Your task to perform on an android device: visit the assistant section in the google photos Image 0: 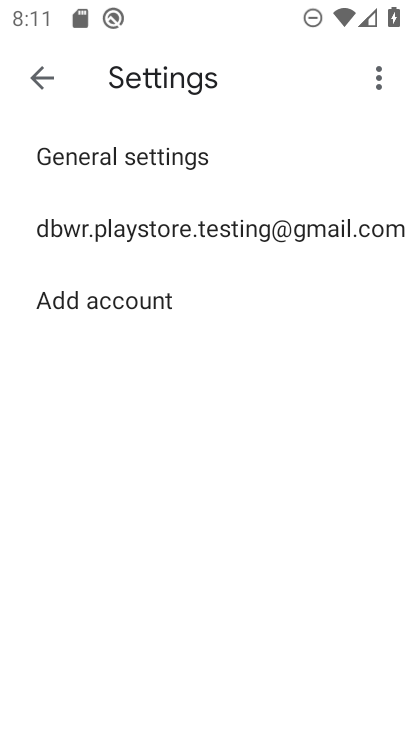
Step 0: press home button
Your task to perform on an android device: visit the assistant section in the google photos Image 1: 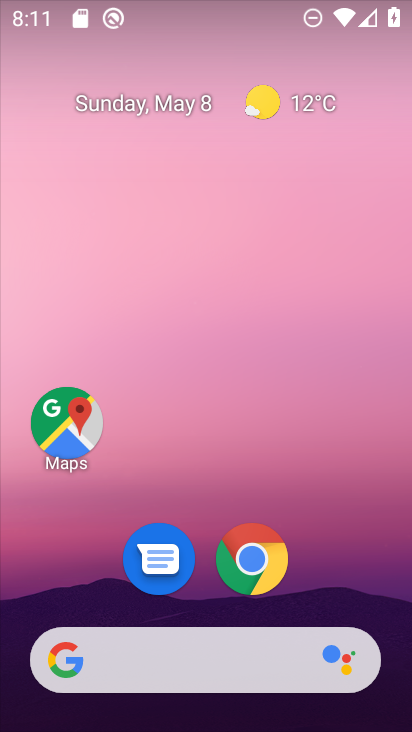
Step 1: drag from (372, 527) to (356, 1)
Your task to perform on an android device: visit the assistant section in the google photos Image 2: 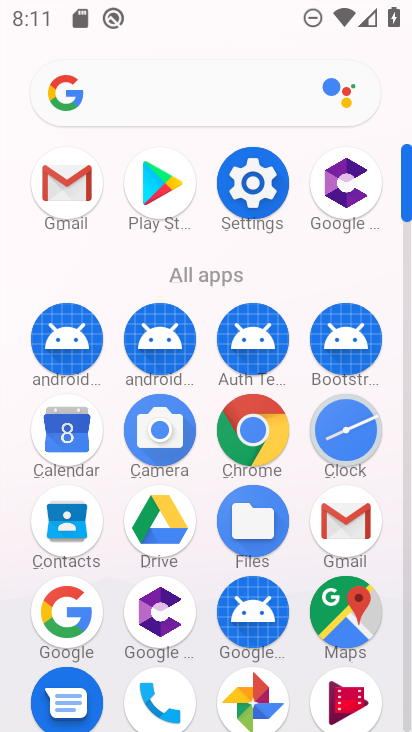
Step 2: click (253, 700)
Your task to perform on an android device: visit the assistant section in the google photos Image 3: 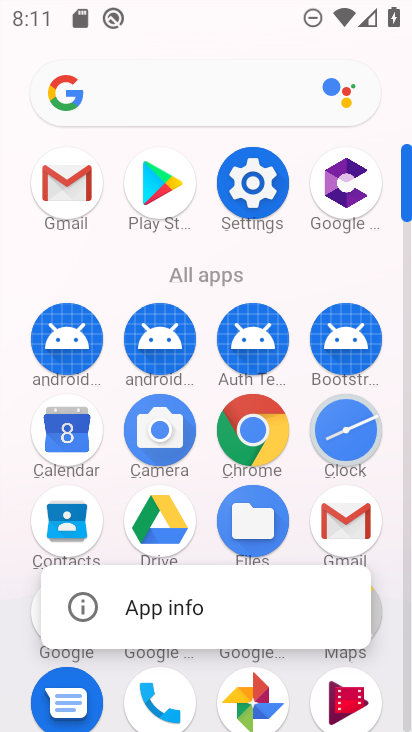
Step 3: click (253, 700)
Your task to perform on an android device: visit the assistant section in the google photos Image 4: 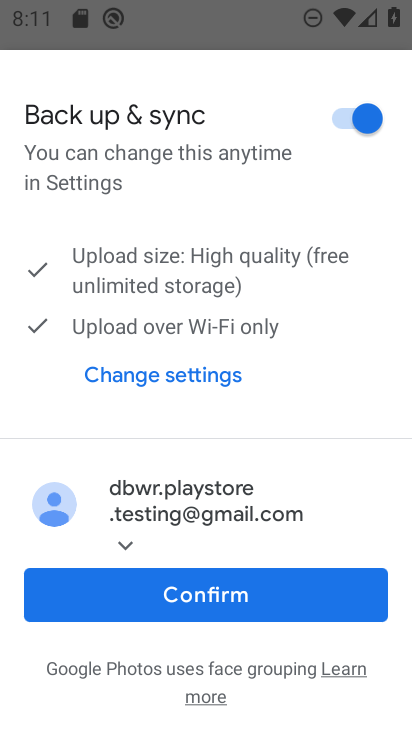
Step 4: click (203, 602)
Your task to perform on an android device: visit the assistant section in the google photos Image 5: 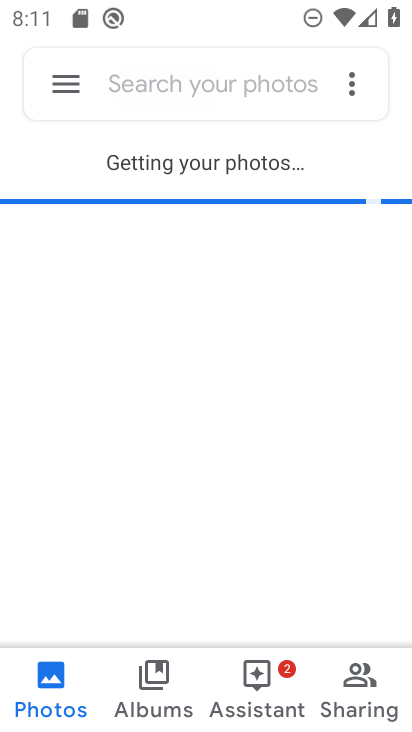
Step 5: click (247, 701)
Your task to perform on an android device: visit the assistant section in the google photos Image 6: 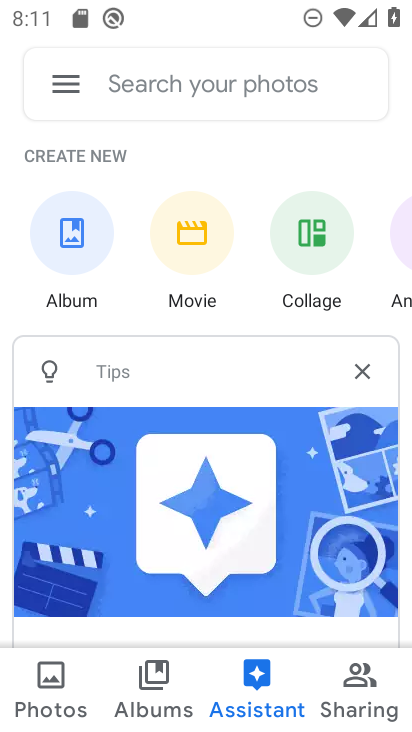
Step 6: task complete